Your task to perform on an android device: change alarm snooze length Image 0: 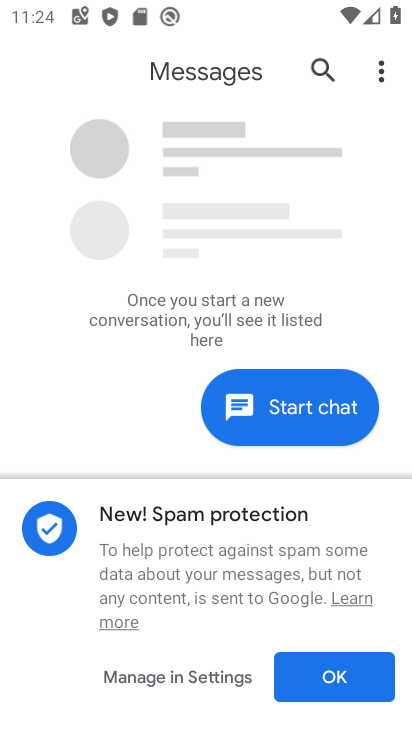
Step 0: press back button
Your task to perform on an android device: change alarm snooze length Image 1: 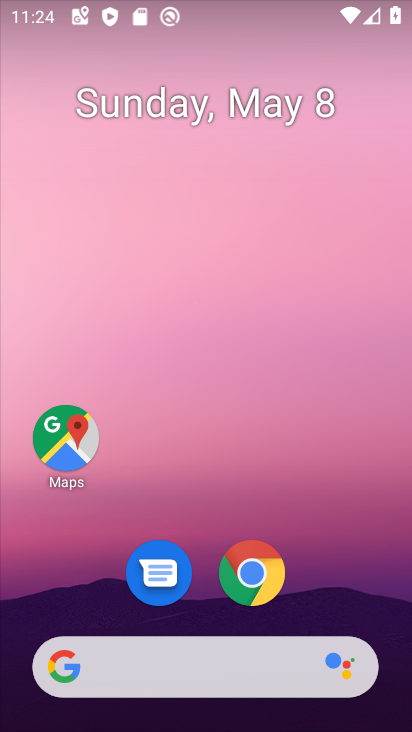
Step 1: drag from (351, 539) to (272, 11)
Your task to perform on an android device: change alarm snooze length Image 2: 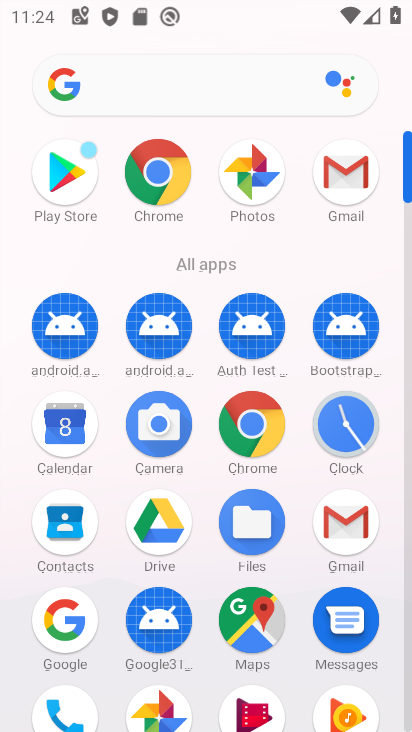
Step 2: drag from (2, 543) to (0, 221)
Your task to perform on an android device: change alarm snooze length Image 3: 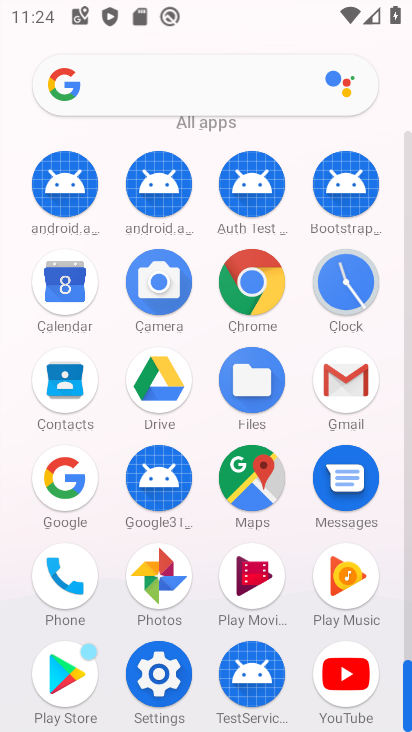
Step 3: click (352, 286)
Your task to perform on an android device: change alarm snooze length Image 4: 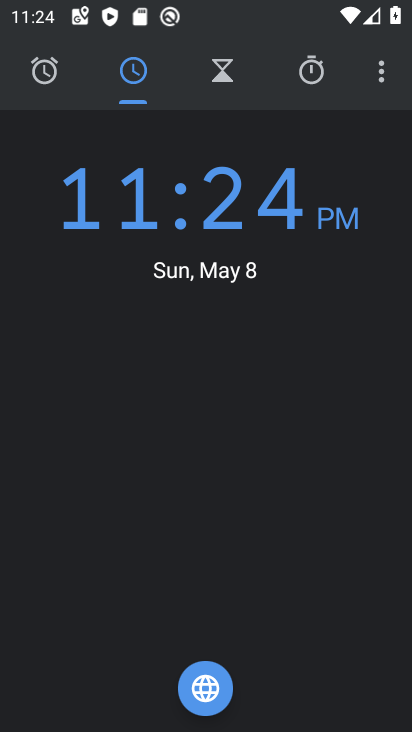
Step 4: click (61, 77)
Your task to perform on an android device: change alarm snooze length Image 5: 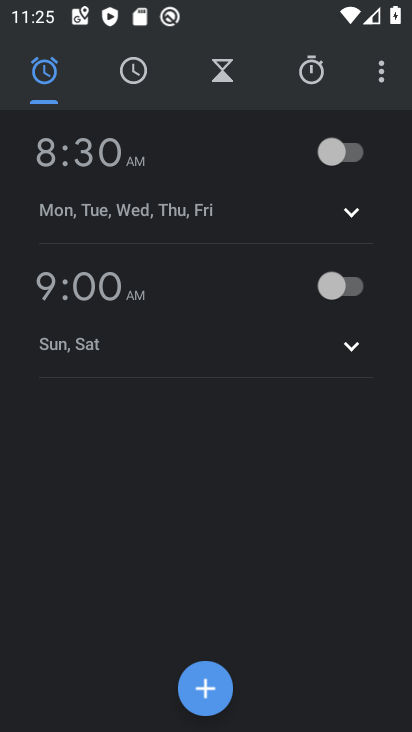
Step 5: drag from (377, 81) to (299, 129)
Your task to perform on an android device: change alarm snooze length Image 6: 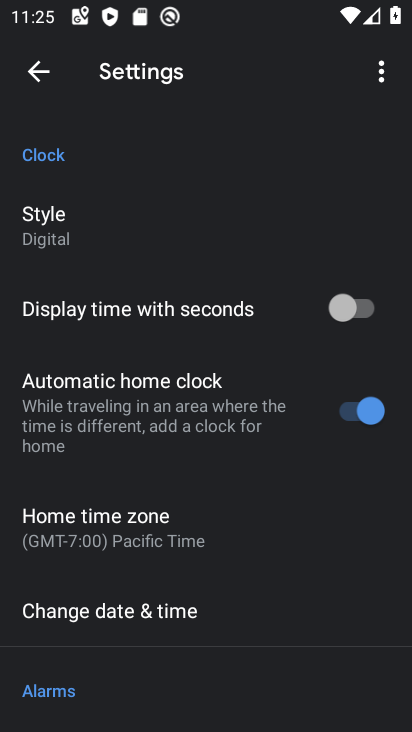
Step 6: drag from (245, 545) to (200, 194)
Your task to perform on an android device: change alarm snooze length Image 7: 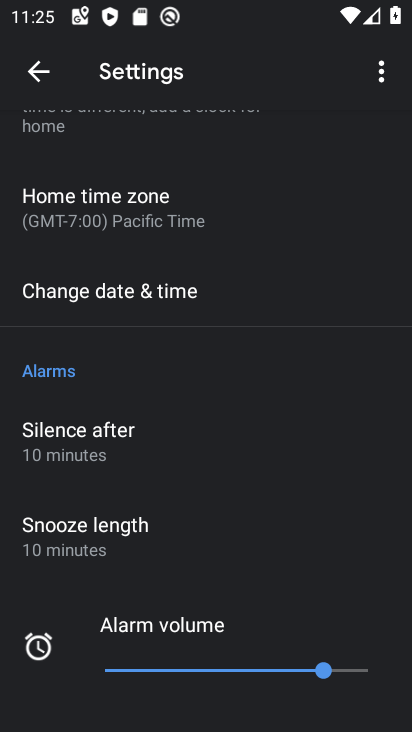
Step 7: click (125, 457)
Your task to perform on an android device: change alarm snooze length Image 8: 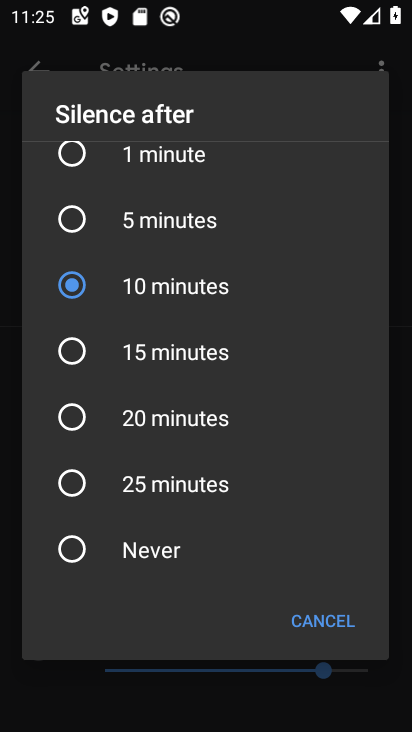
Step 8: click (142, 354)
Your task to perform on an android device: change alarm snooze length Image 9: 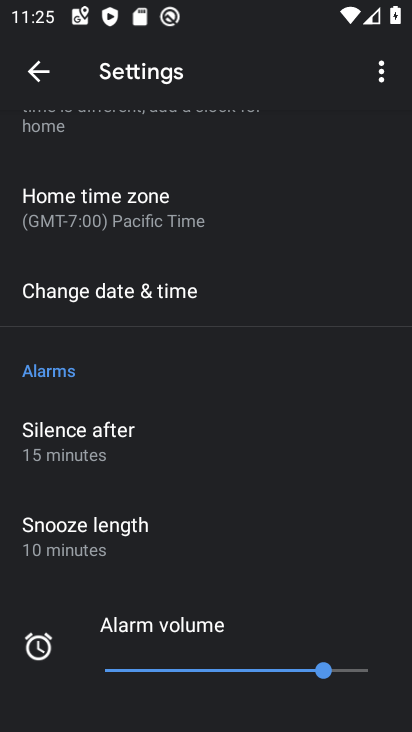
Step 9: task complete